Your task to perform on an android device: Add "razer naga" to the cart on amazon.com Image 0: 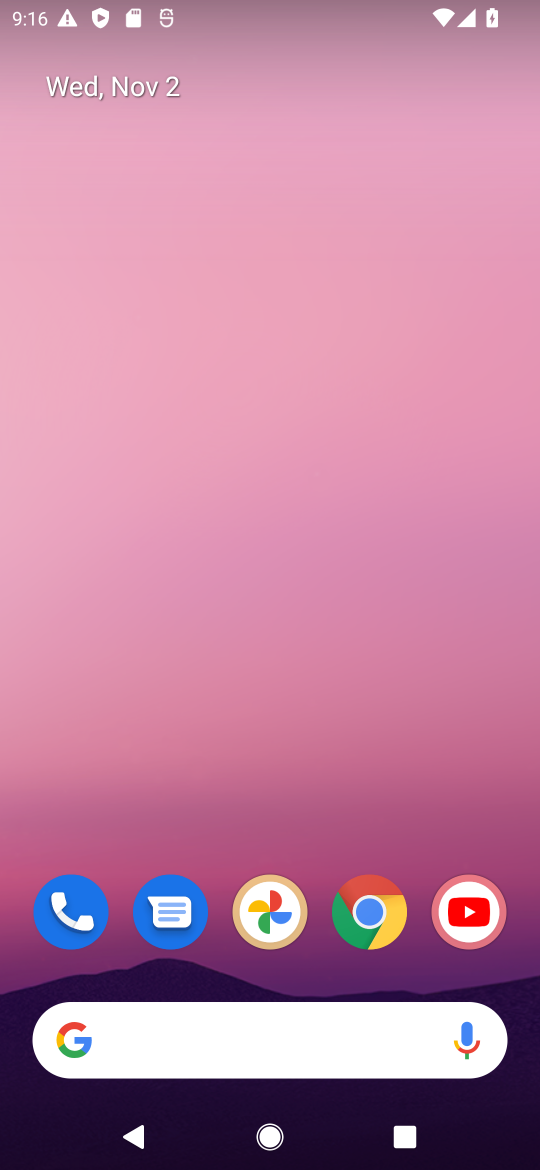
Step 0: drag from (335, 1103) to (384, 128)
Your task to perform on an android device: Add "razer naga" to the cart on amazon.com Image 1: 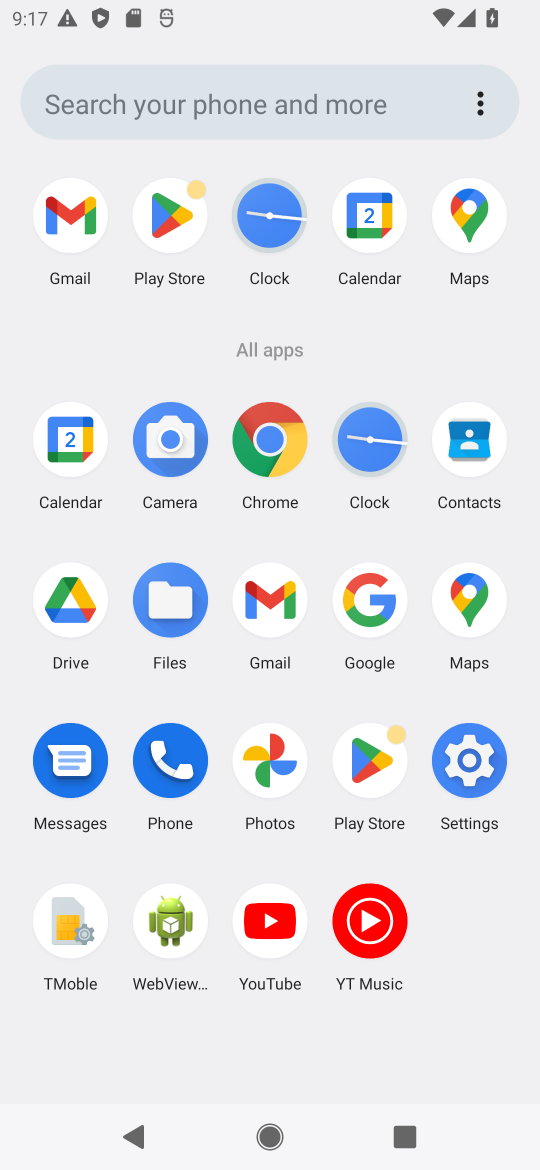
Step 1: click (256, 432)
Your task to perform on an android device: Add "razer naga" to the cart on amazon.com Image 2: 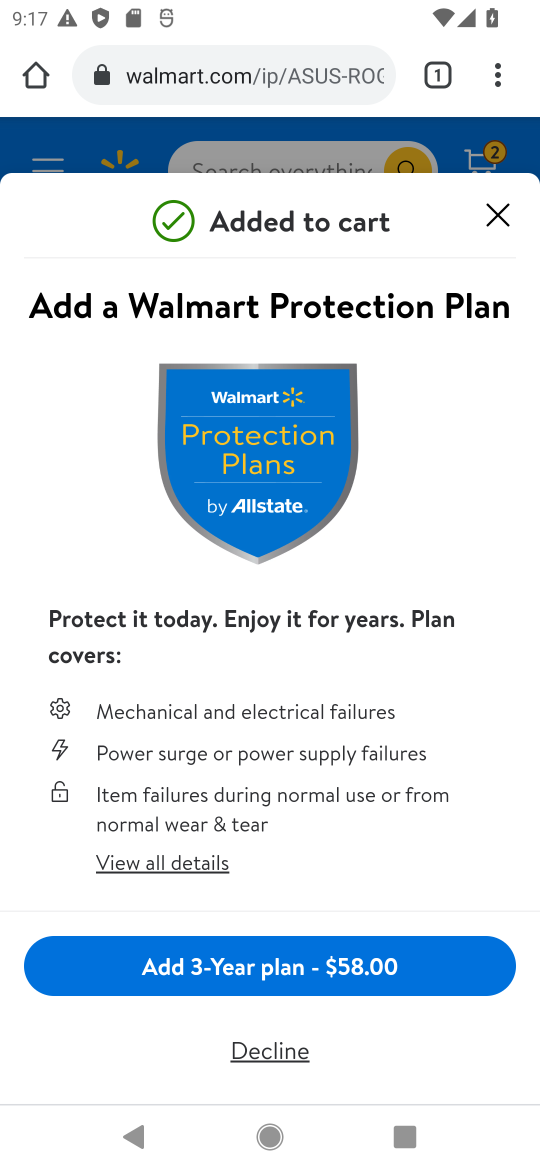
Step 2: click (497, 212)
Your task to perform on an android device: Add "razer naga" to the cart on amazon.com Image 3: 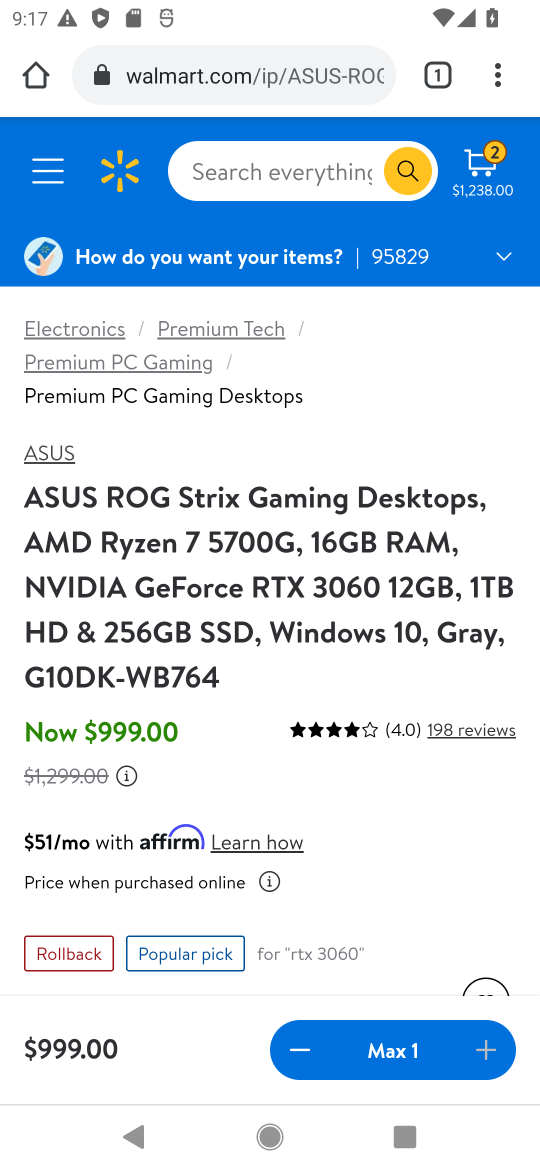
Step 3: click (324, 60)
Your task to perform on an android device: Add "razer naga" to the cart on amazon.com Image 4: 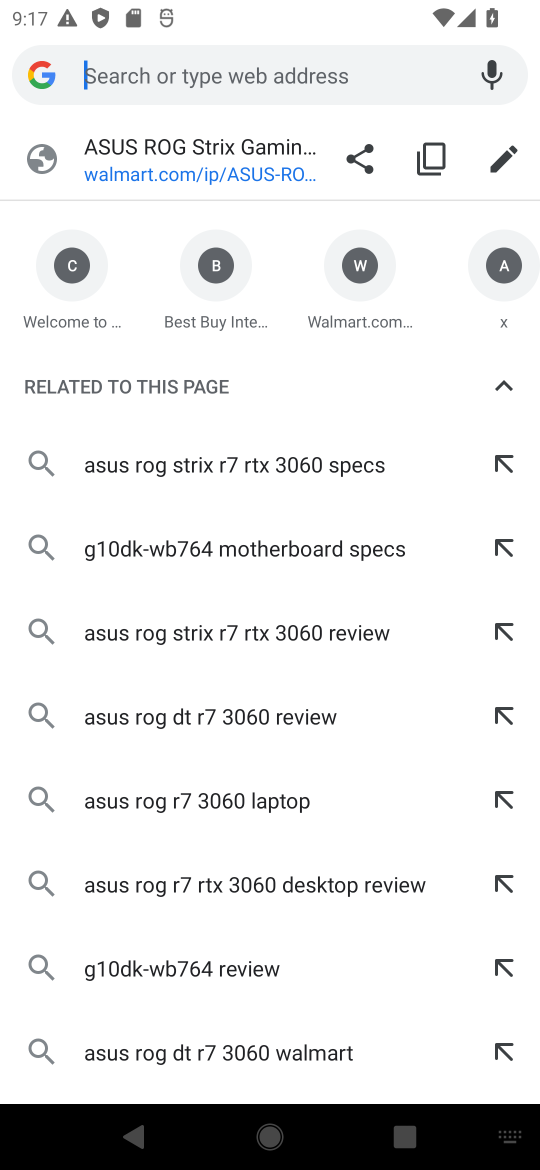
Step 4: type "razer naga"
Your task to perform on an android device: Add "razer naga" to the cart on amazon.com Image 5: 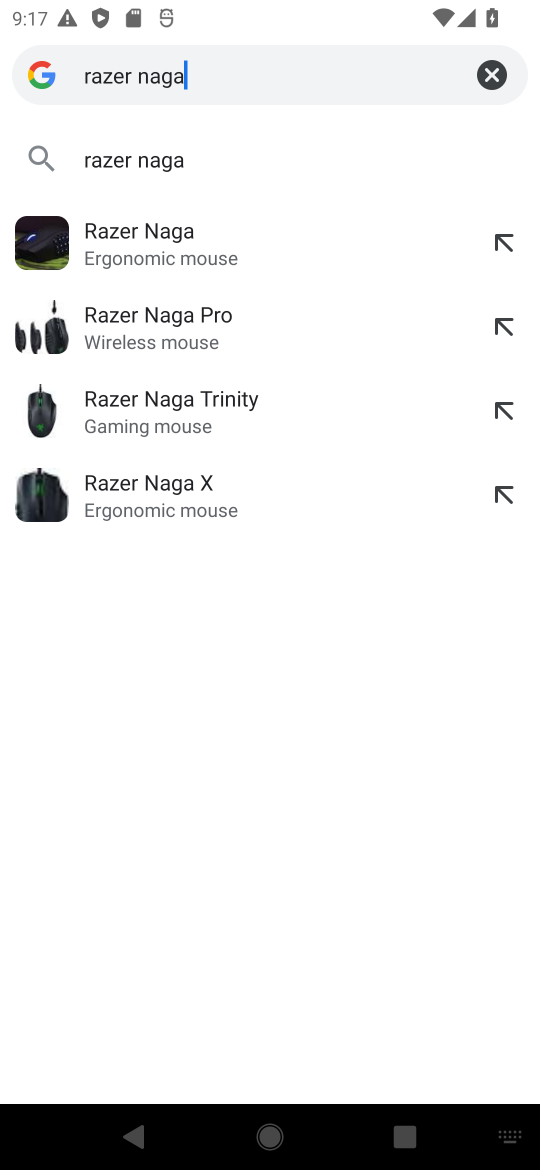
Step 5: click (144, 154)
Your task to perform on an android device: Add "razer naga" to the cart on amazon.com Image 6: 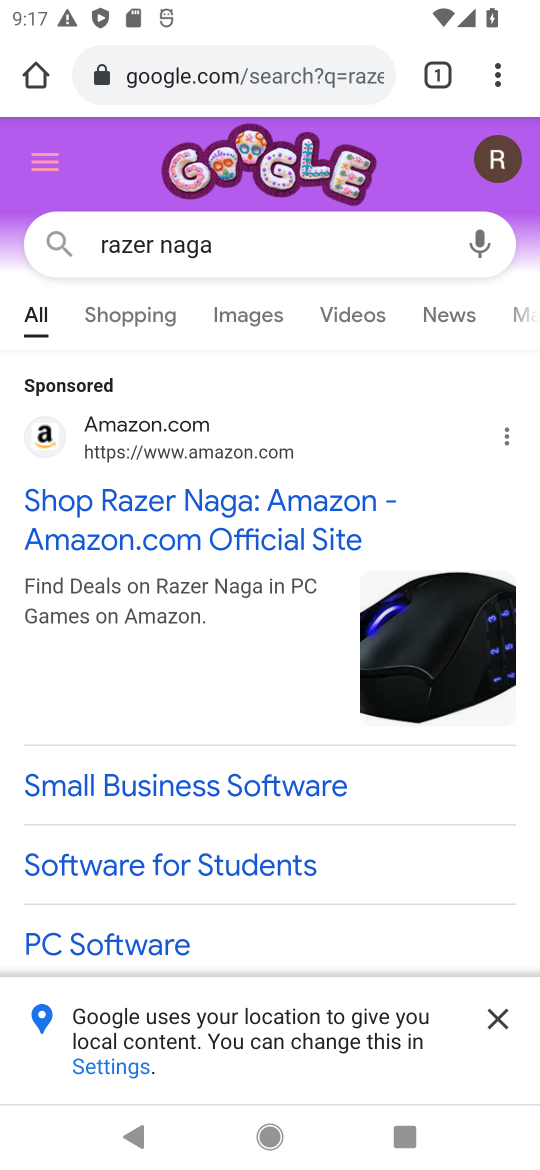
Step 6: click (196, 532)
Your task to perform on an android device: Add "razer naga" to the cart on amazon.com Image 7: 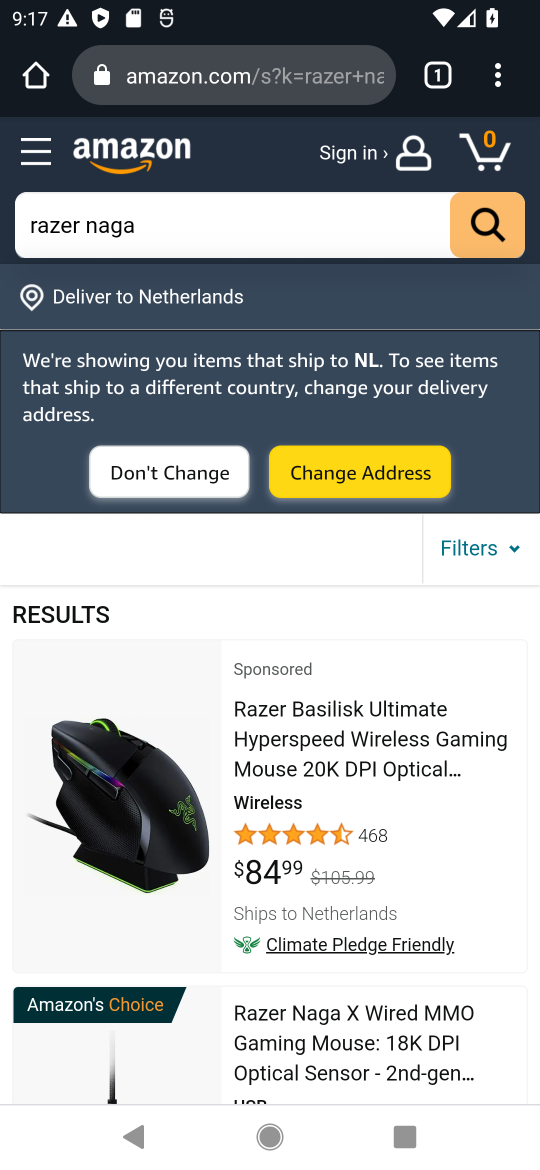
Step 7: click (138, 577)
Your task to perform on an android device: Add "razer naga" to the cart on amazon.com Image 8: 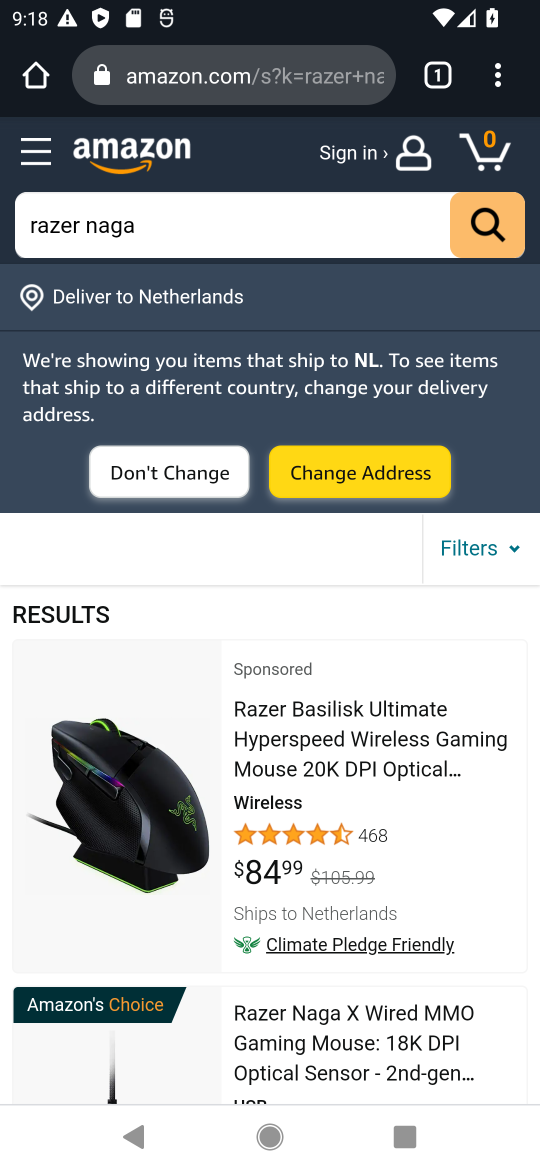
Step 8: click (172, 767)
Your task to perform on an android device: Add "razer naga" to the cart on amazon.com Image 9: 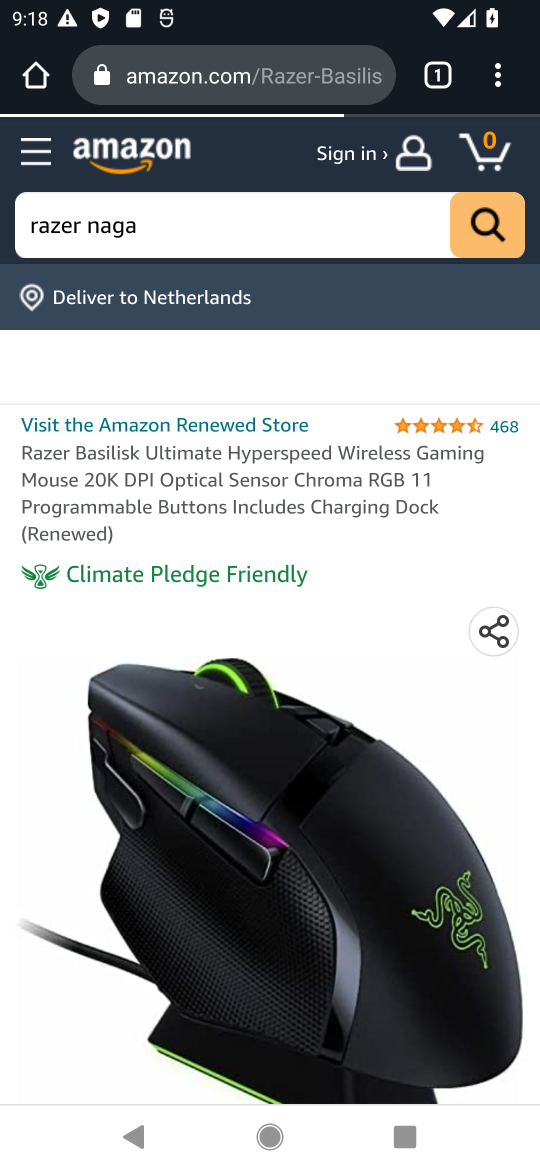
Step 9: drag from (239, 694) to (336, 391)
Your task to perform on an android device: Add "razer naga" to the cart on amazon.com Image 10: 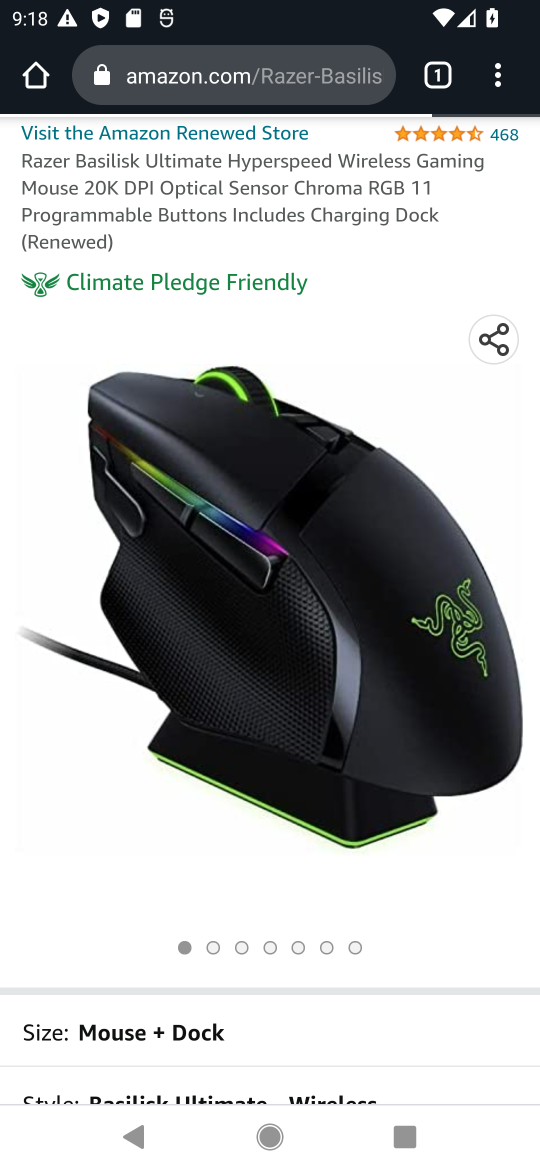
Step 10: drag from (162, 891) to (310, 392)
Your task to perform on an android device: Add "razer naga" to the cart on amazon.com Image 11: 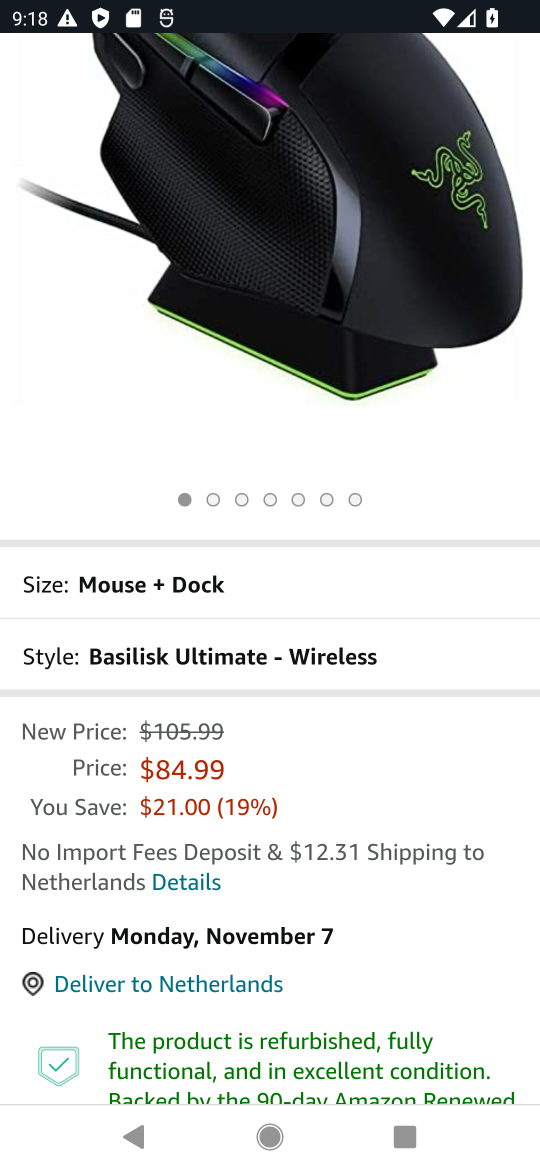
Step 11: drag from (305, 798) to (405, 355)
Your task to perform on an android device: Add "razer naga" to the cart on amazon.com Image 12: 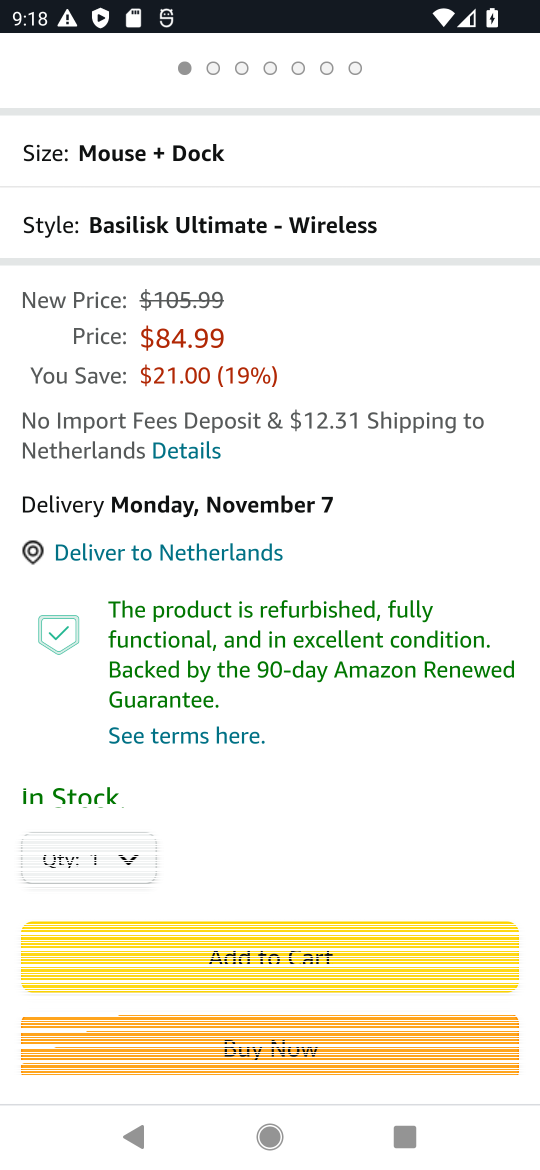
Step 12: click (260, 951)
Your task to perform on an android device: Add "razer naga" to the cart on amazon.com Image 13: 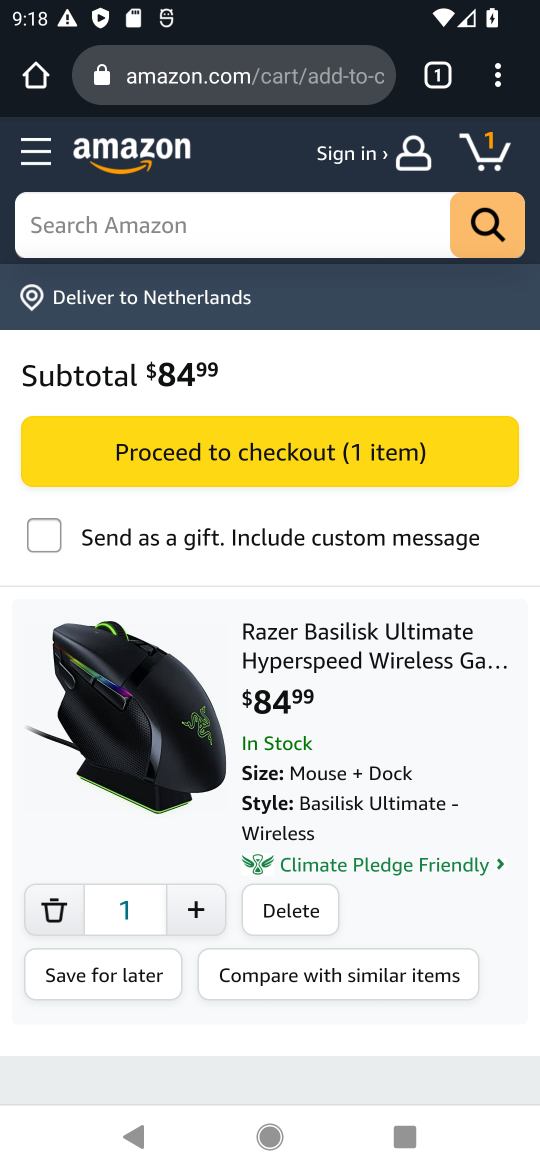
Step 13: task complete